Your task to perform on an android device: allow notifications from all sites in the chrome app Image 0: 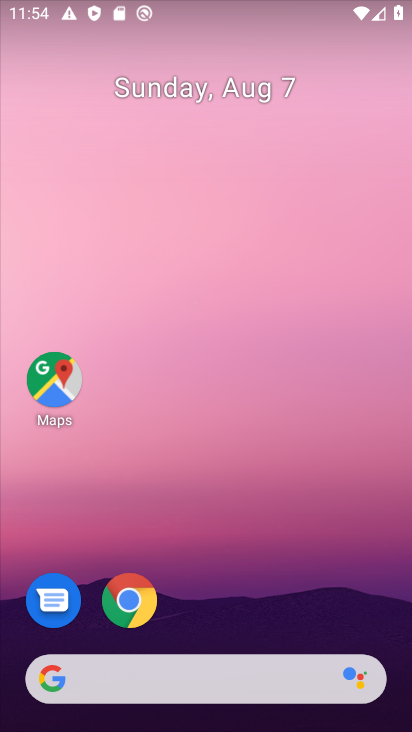
Step 0: click (120, 600)
Your task to perform on an android device: allow notifications from all sites in the chrome app Image 1: 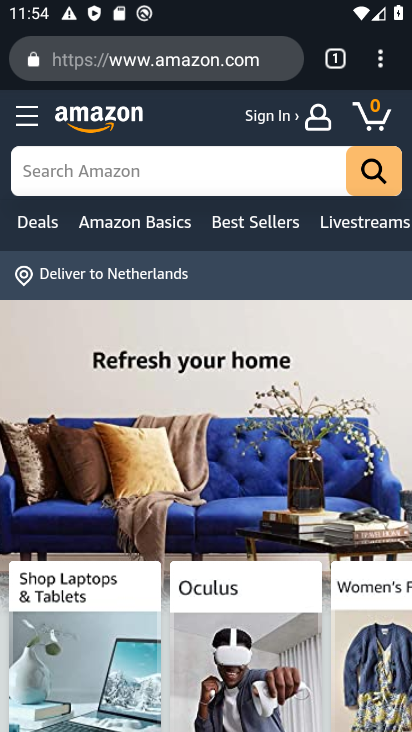
Step 1: click (375, 63)
Your task to perform on an android device: allow notifications from all sites in the chrome app Image 2: 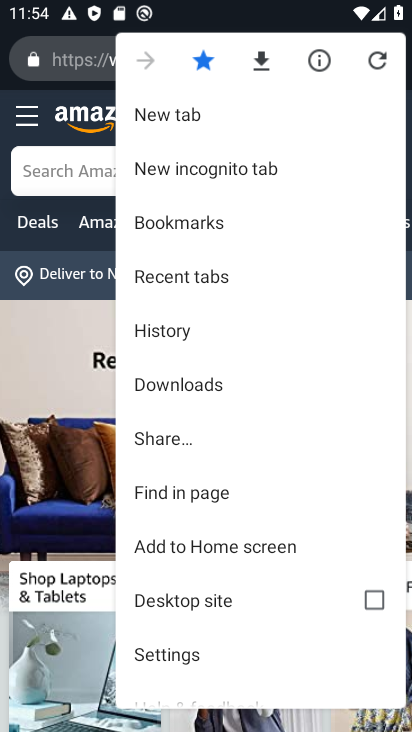
Step 2: click (229, 660)
Your task to perform on an android device: allow notifications from all sites in the chrome app Image 3: 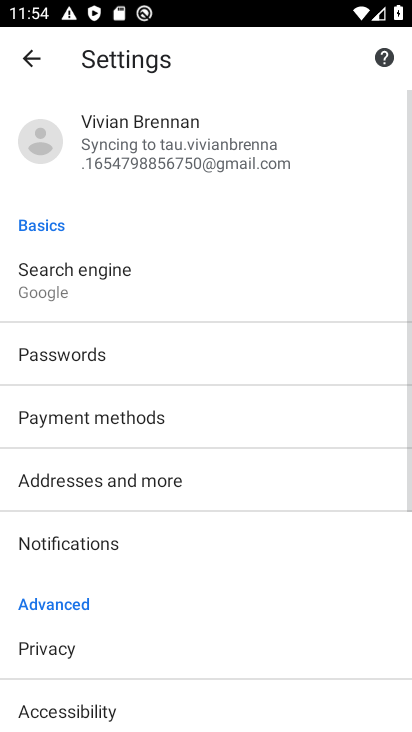
Step 3: drag from (207, 569) to (192, 180)
Your task to perform on an android device: allow notifications from all sites in the chrome app Image 4: 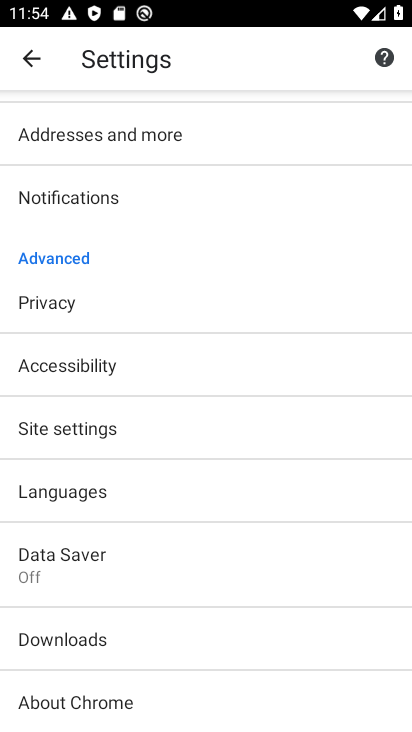
Step 4: drag from (120, 620) to (154, 342)
Your task to perform on an android device: allow notifications from all sites in the chrome app Image 5: 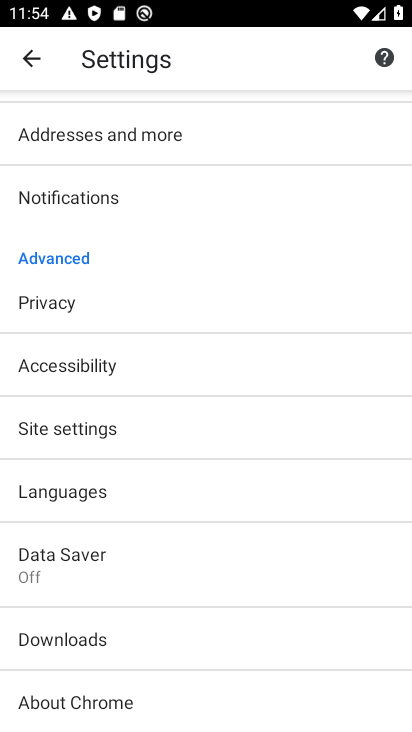
Step 5: click (104, 429)
Your task to perform on an android device: allow notifications from all sites in the chrome app Image 6: 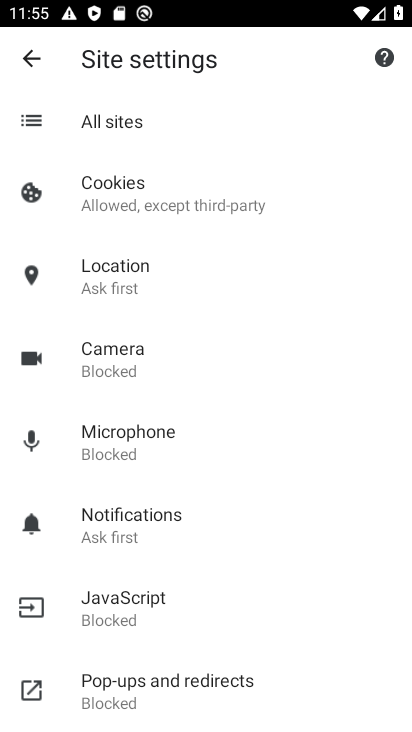
Step 6: click (133, 127)
Your task to perform on an android device: allow notifications from all sites in the chrome app Image 7: 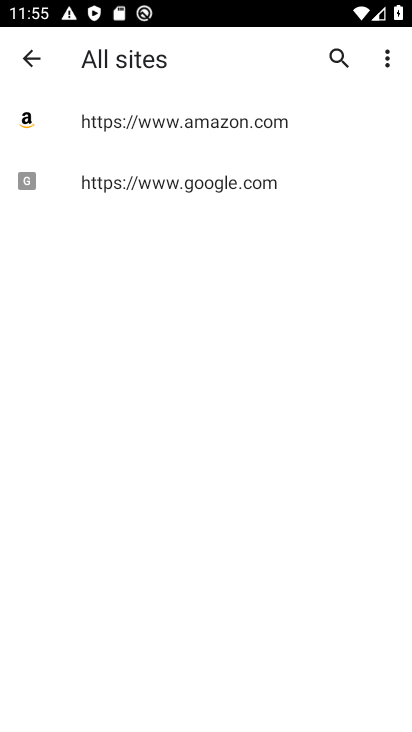
Step 7: click (133, 127)
Your task to perform on an android device: allow notifications from all sites in the chrome app Image 8: 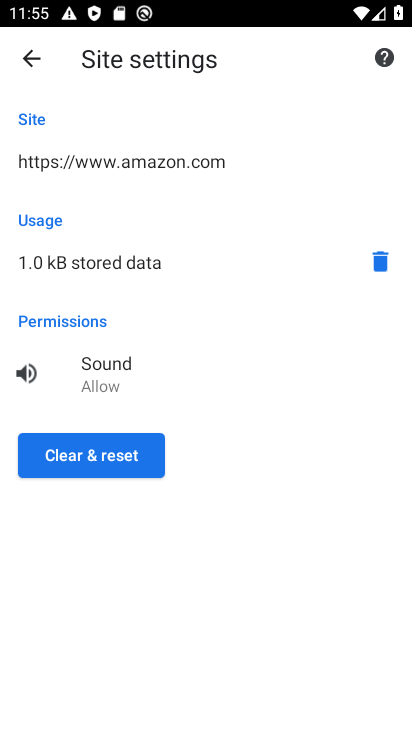
Step 8: click (60, 161)
Your task to perform on an android device: allow notifications from all sites in the chrome app Image 9: 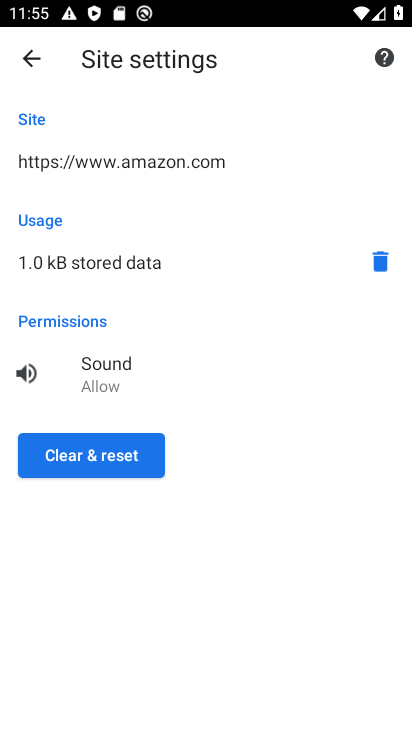
Step 9: click (111, 166)
Your task to perform on an android device: allow notifications from all sites in the chrome app Image 10: 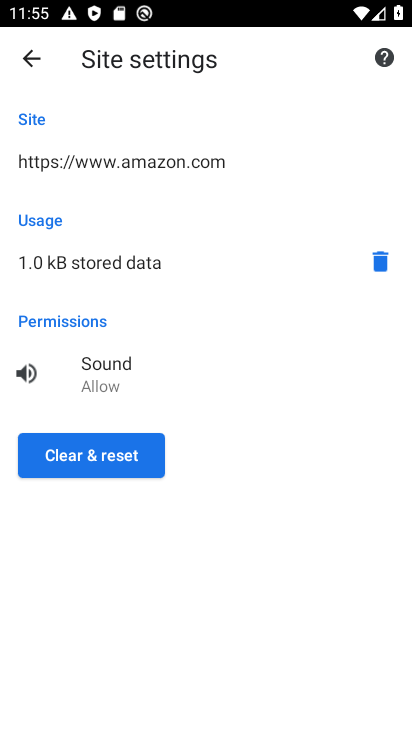
Step 10: click (12, 55)
Your task to perform on an android device: allow notifications from all sites in the chrome app Image 11: 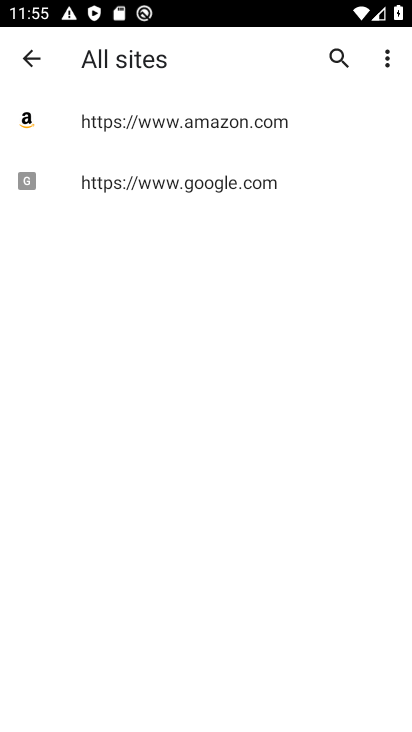
Step 11: click (152, 207)
Your task to perform on an android device: allow notifications from all sites in the chrome app Image 12: 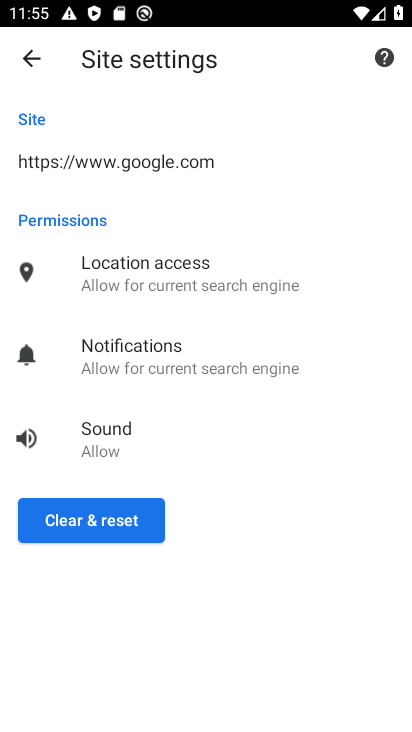
Step 12: click (149, 326)
Your task to perform on an android device: allow notifications from all sites in the chrome app Image 13: 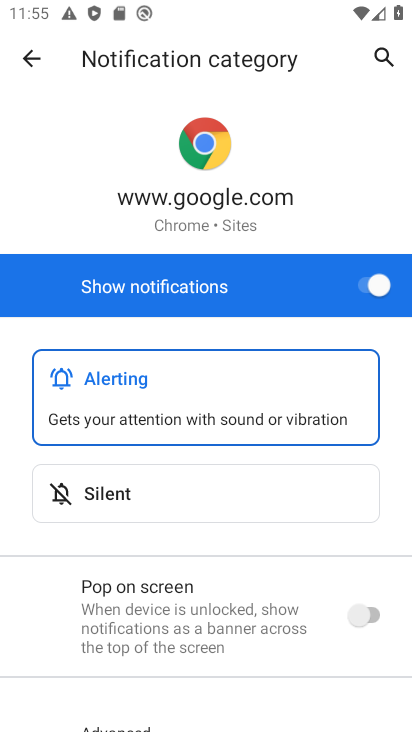
Step 13: task complete